Your task to perform on an android device: Clear the cart on walmart. Image 0: 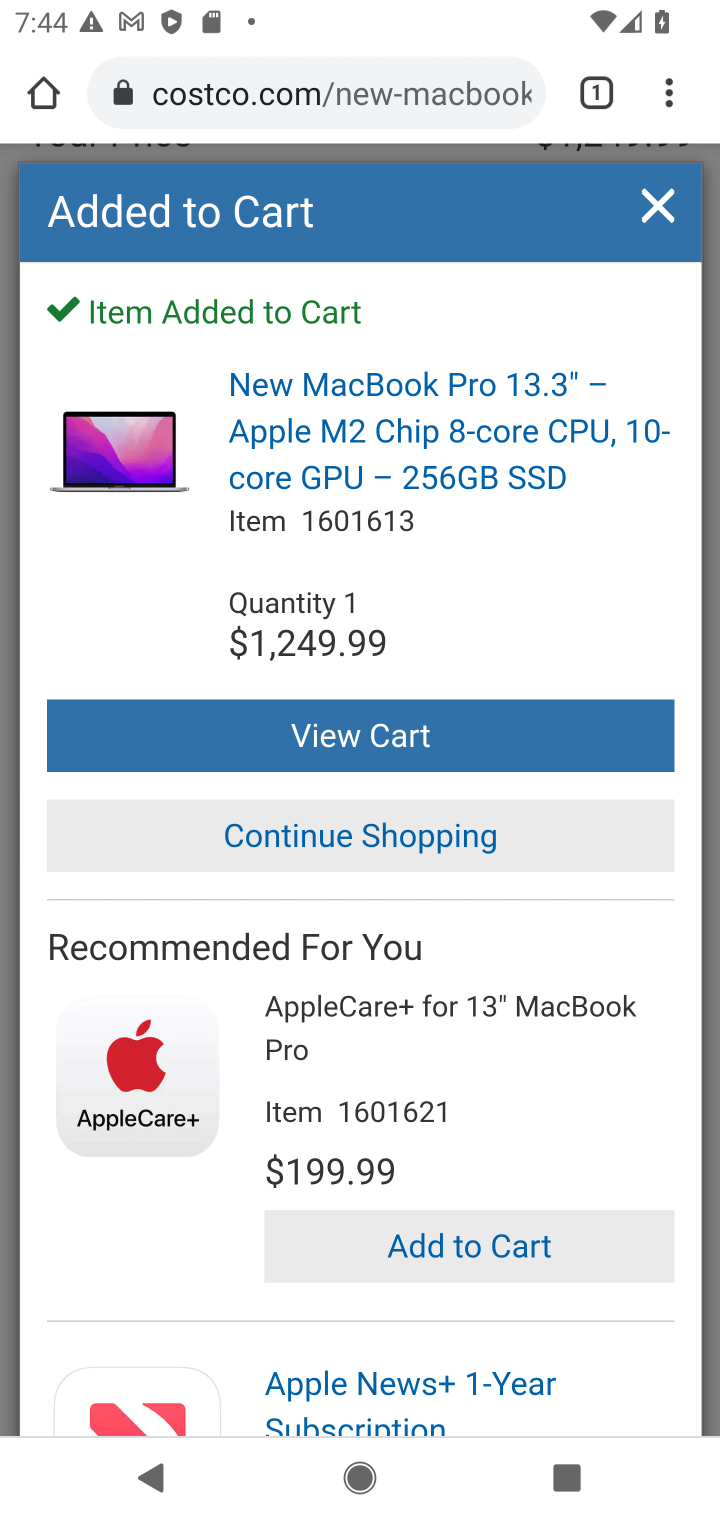
Step 0: press home button
Your task to perform on an android device: Clear the cart on walmart. Image 1: 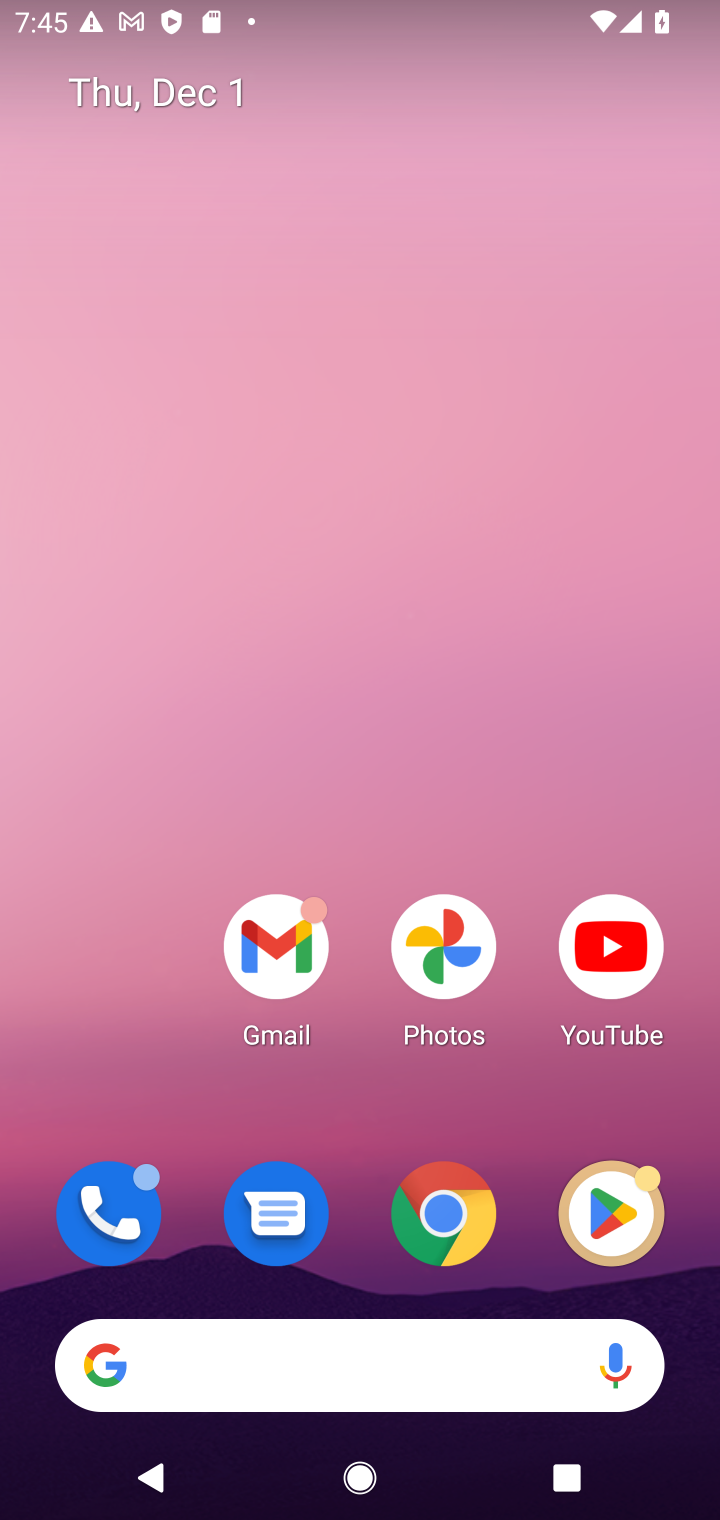
Step 1: click (443, 1224)
Your task to perform on an android device: Clear the cart on walmart. Image 2: 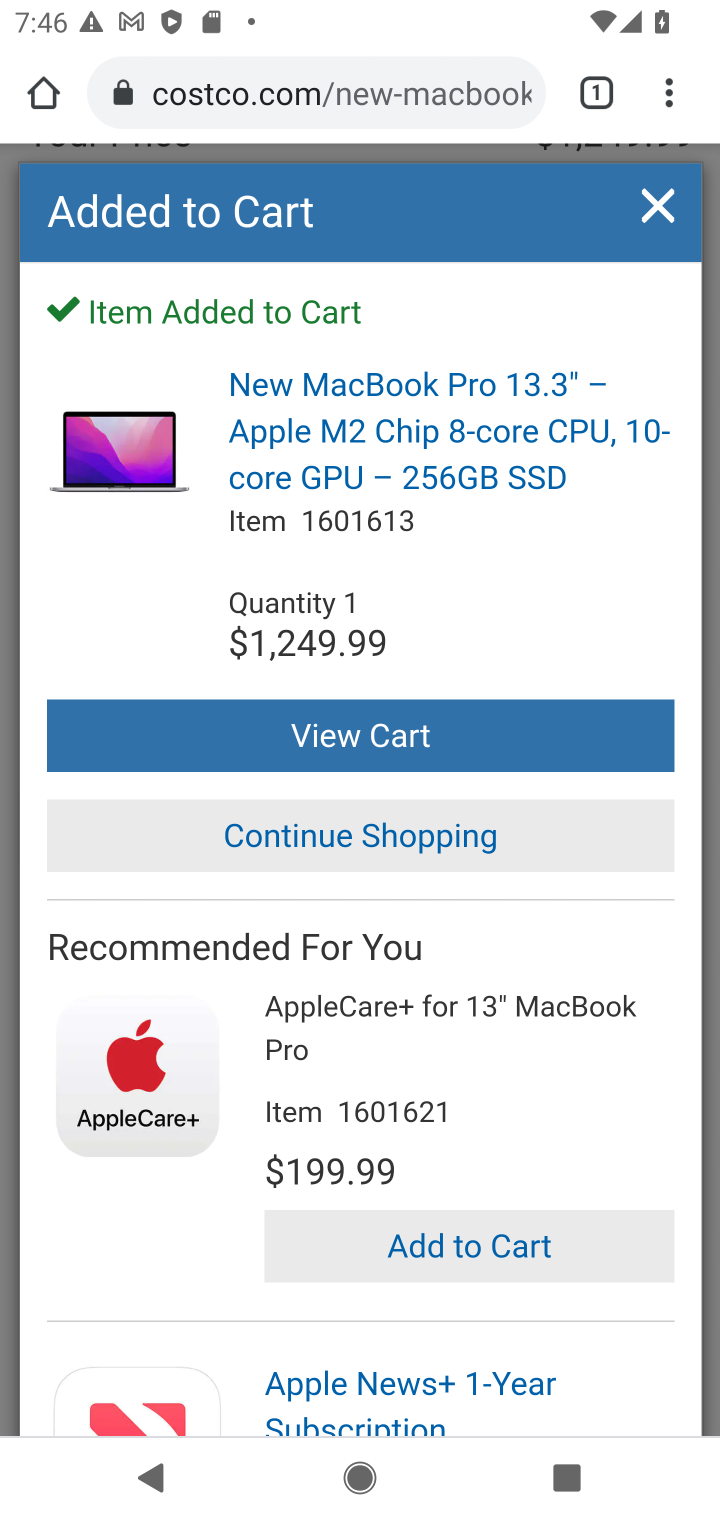
Step 2: click (332, 87)
Your task to perform on an android device: Clear the cart on walmart. Image 3: 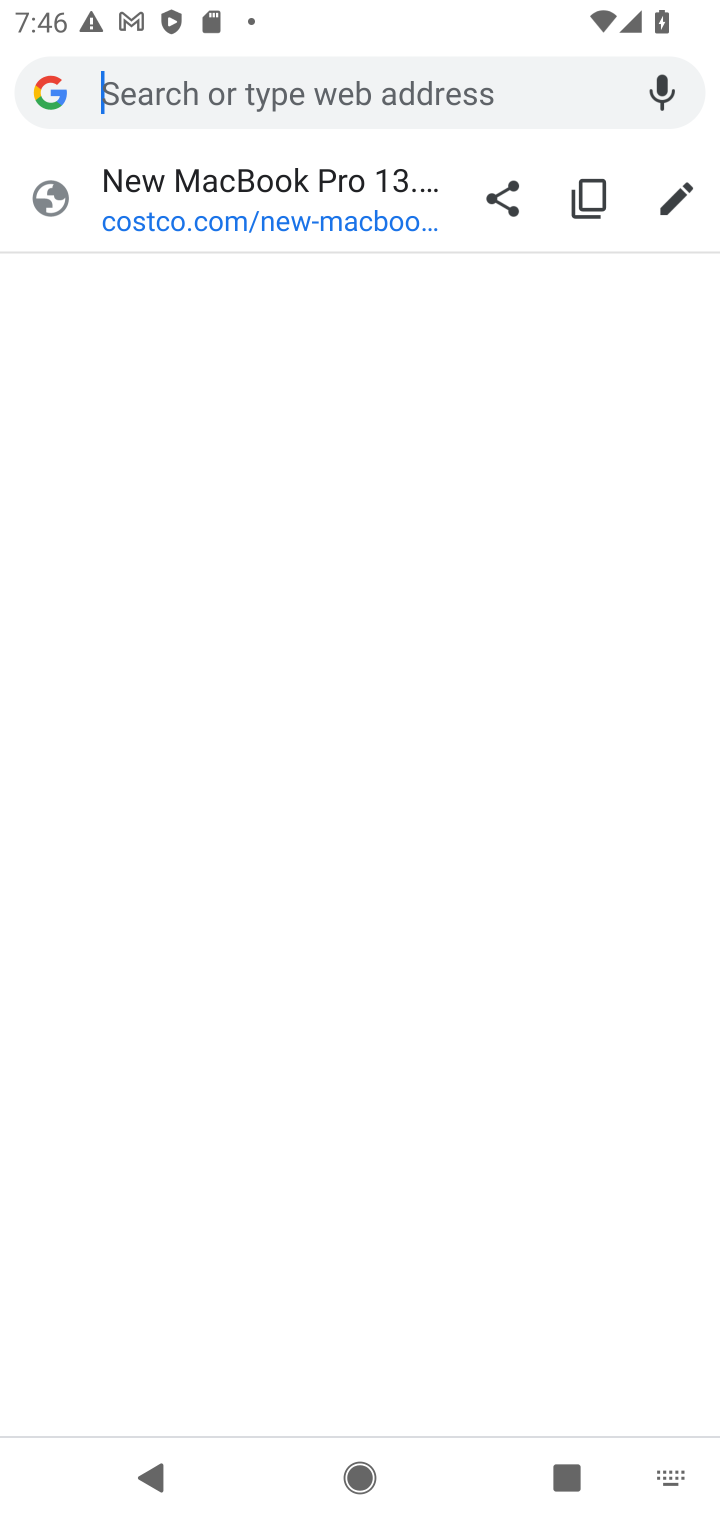
Step 3: click (343, 93)
Your task to perform on an android device: Clear the cart on walmart. Image 4: 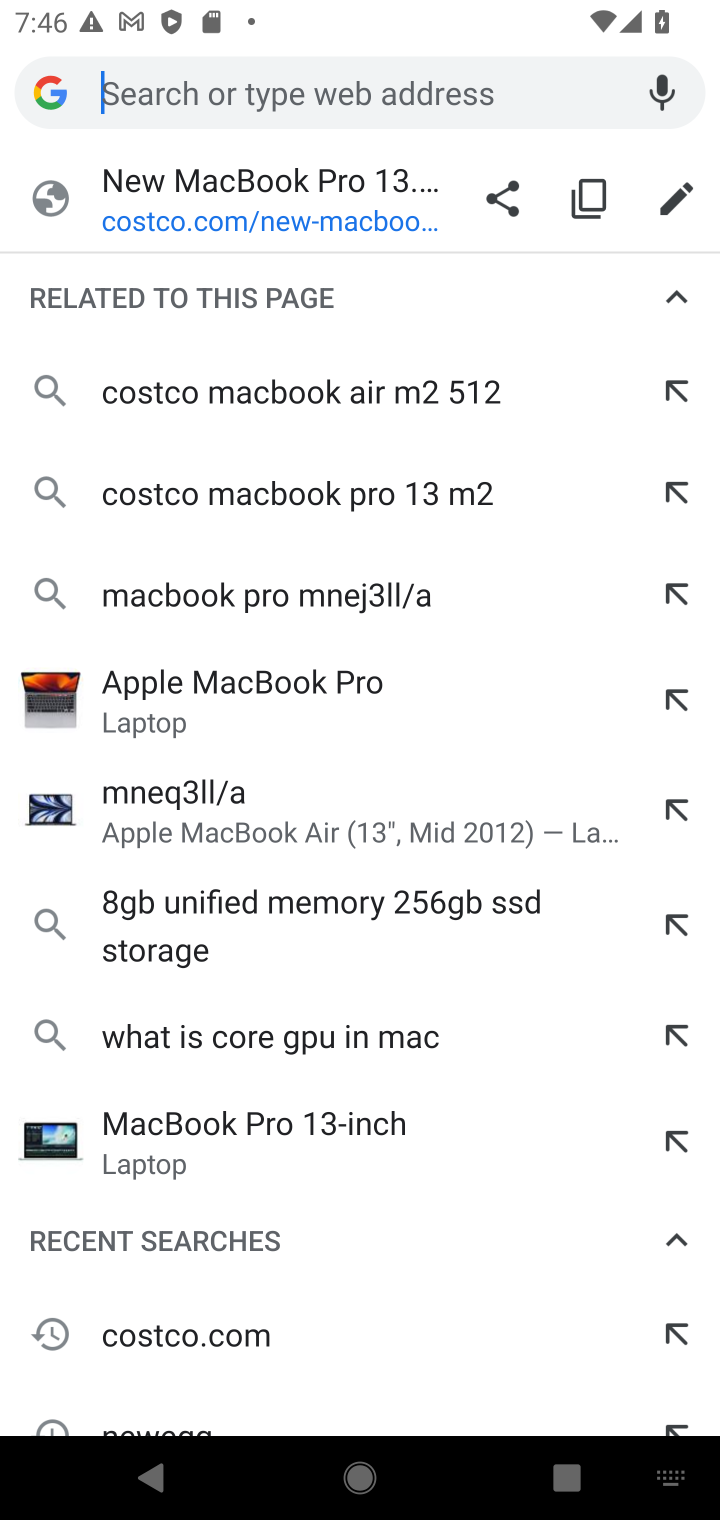
Step 4: type "walmart"
Your task to perform on an android device: Clear the cart on walmart. Image 5: 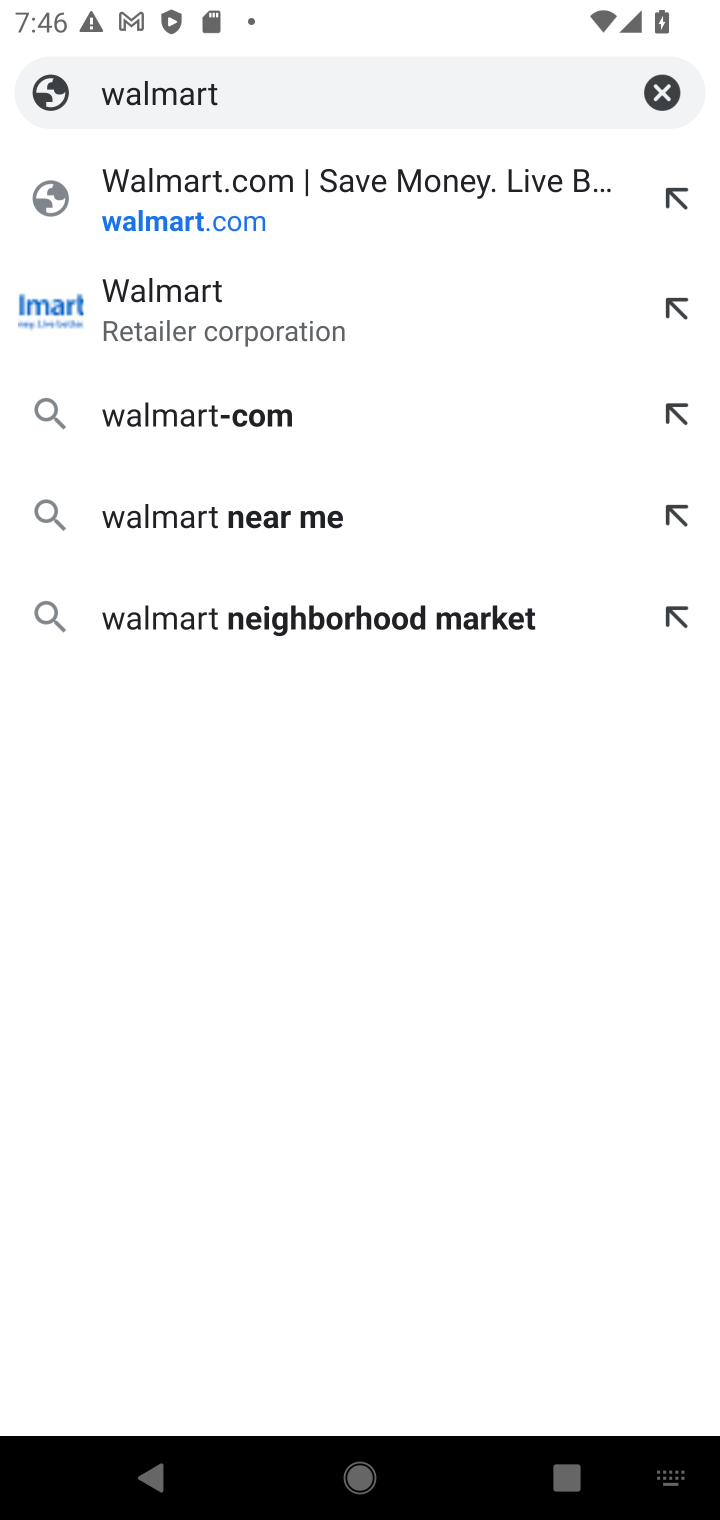
Step 5: click (201, 204)
Your task to perform on an android device: Clear the cart on walmart. Image 6: 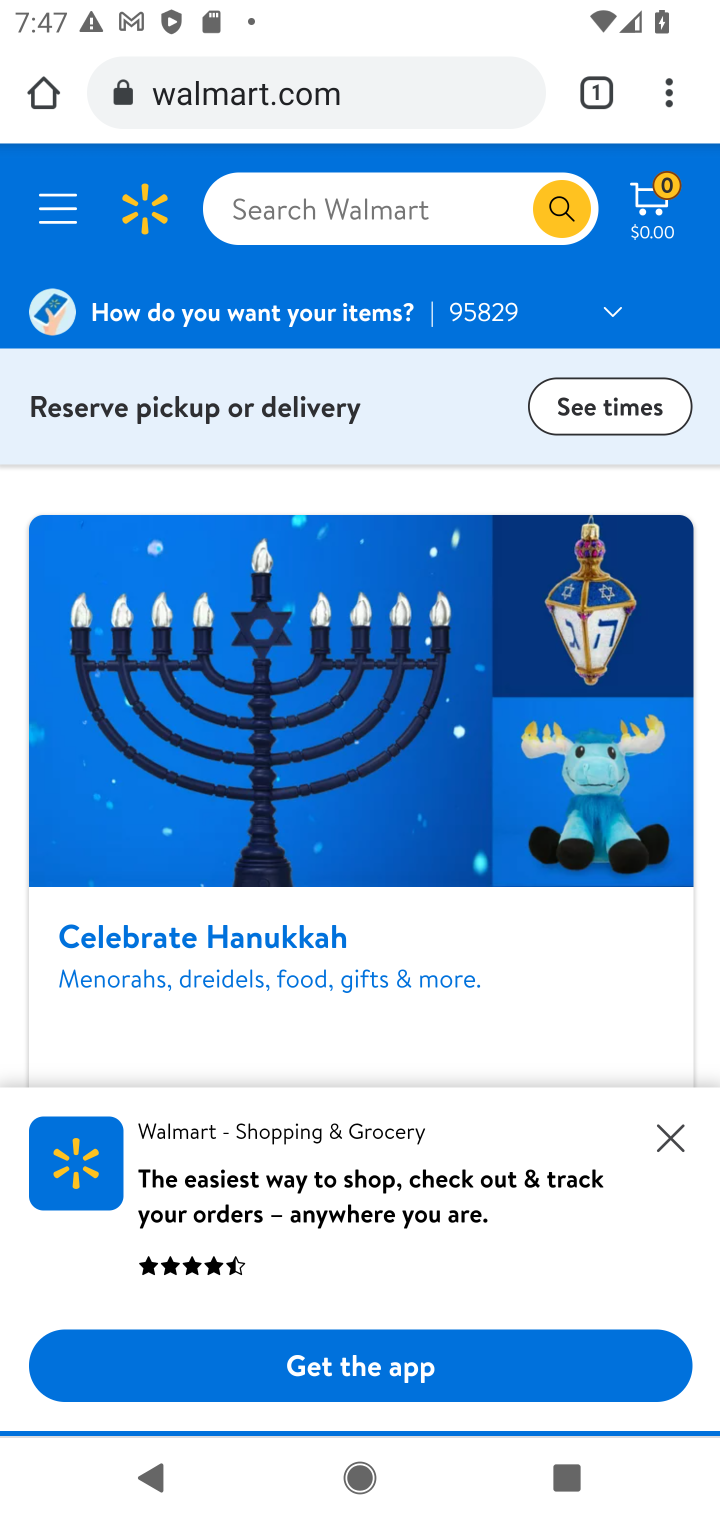
Step 6: click (642, 195)
Your task to perform on an android device: Clear the cart on walmart. Image 7: 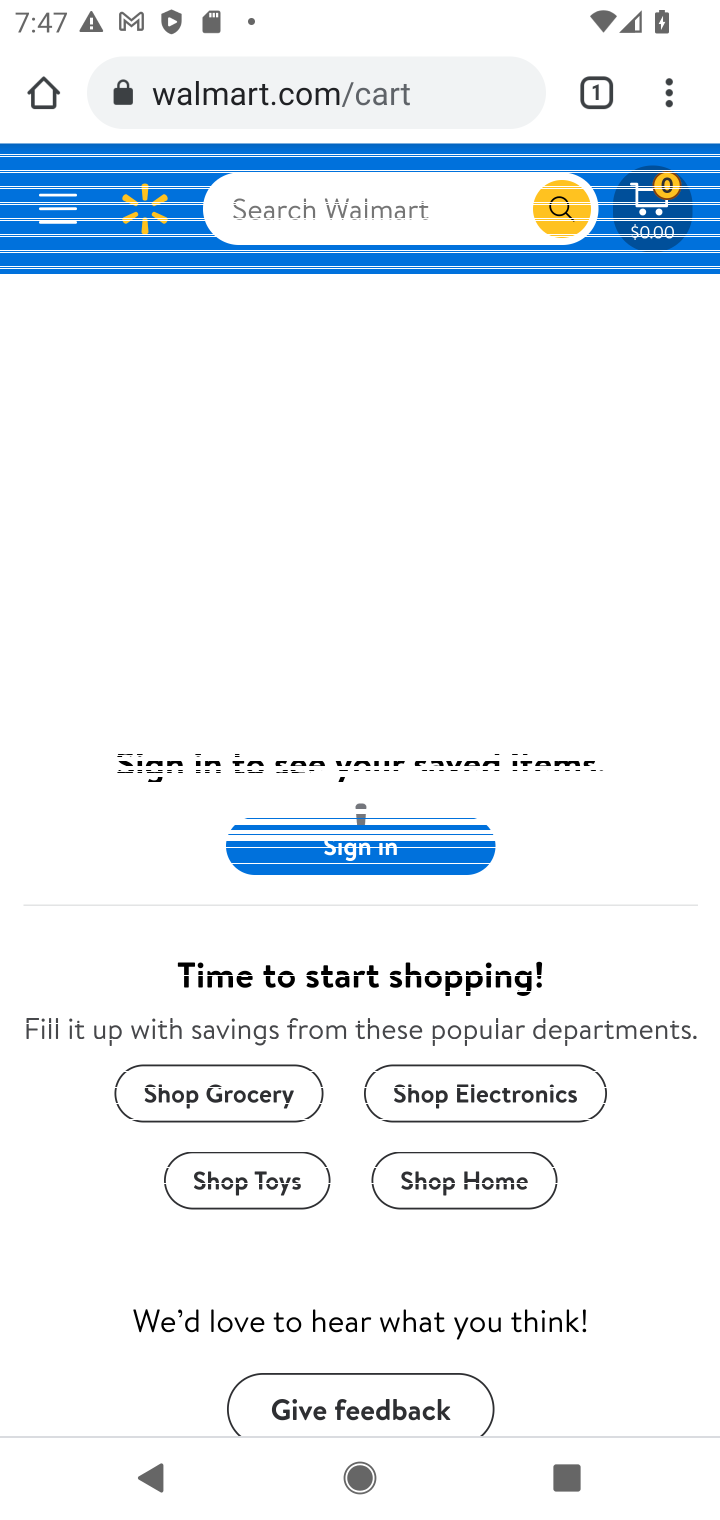
Step 7: task complete